Your task to perform on an android device: Go to sound settings Image 0: 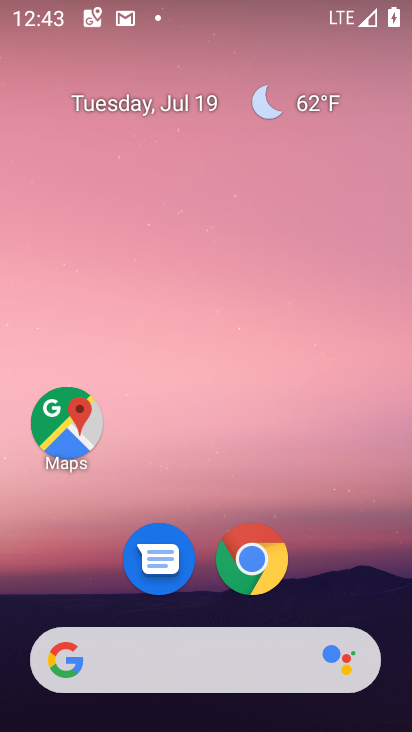
Step 0: drag from (181, 663) to (314, 3)
Your task to perform on an android device: Go to sound settings Image 1: 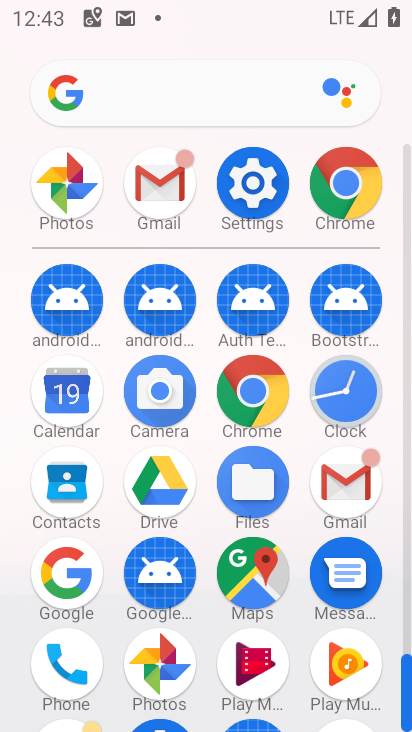
Step 1: click (264, 203)
Your task to perform on an android device: Go to sound settings Image 2: 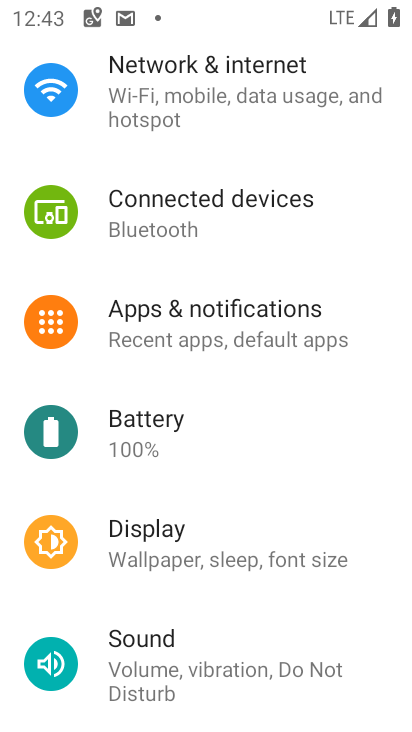
Step 2: drag from (172, 495) to (199, 328)
Your task to perform on an android device: Go to sound settings Image 3: 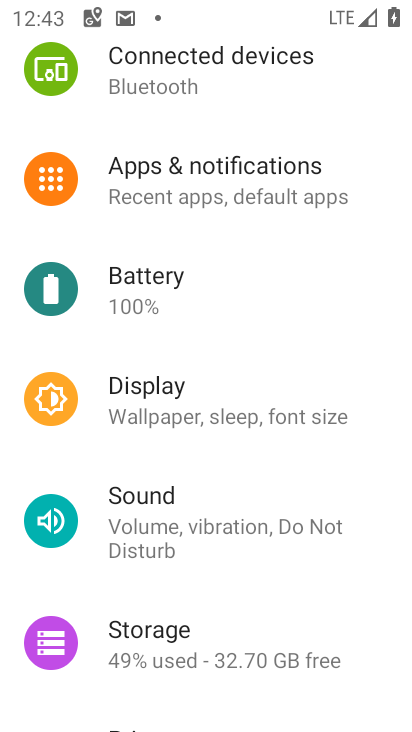
Step 3: click (211, 513)
Your task to perform on an android device: Go to sound settings Image 4: 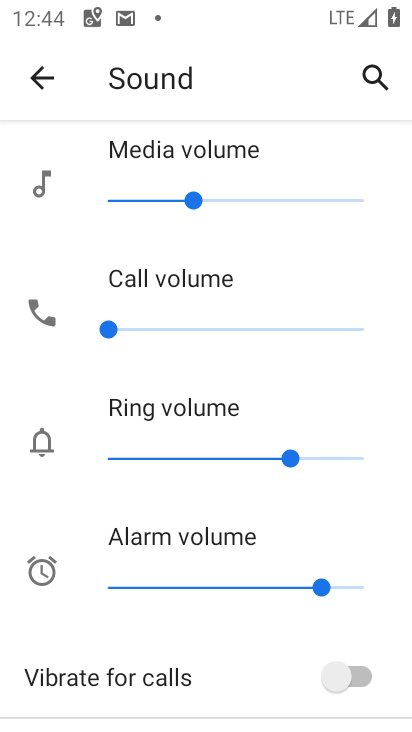
Step 4: task complete